Your task to perform on an android device: Go to ESPN.com Image 0: 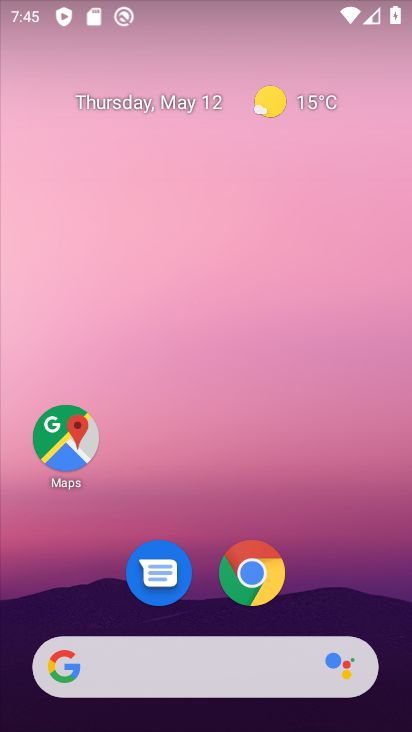
Step 0: click (258, 575)
Your task to perform on an android device: Go to ESPN.com Image 1: 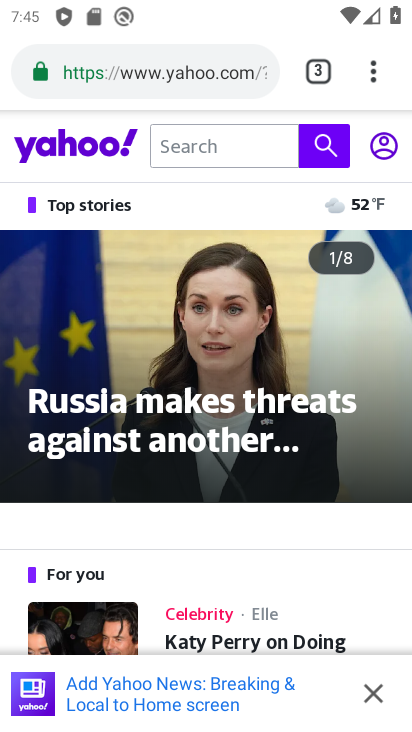
Step 1: click (374, 98)
Your task to perform on an android device: Go to ESPN.com Image 2: 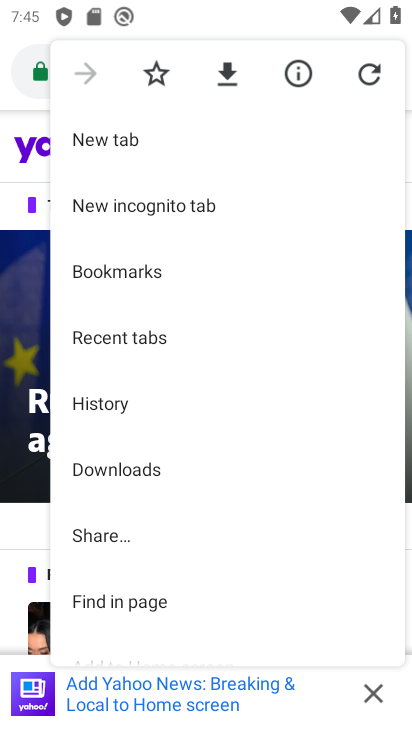
Step 2: click (124, 134)
Your task to perform on an android device: Go to ESPN.com Image 3: 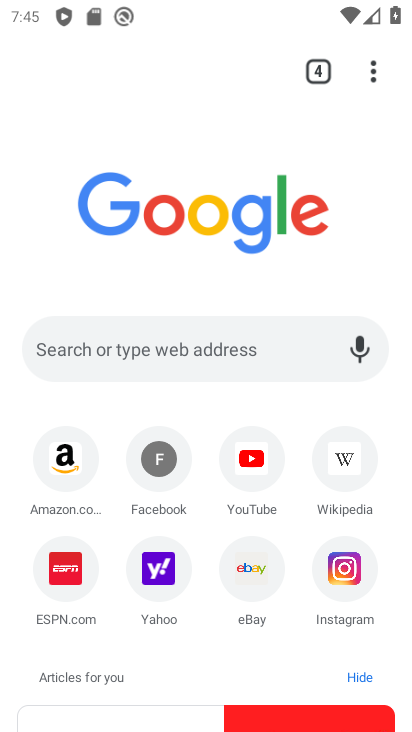
Step 3: click (71, 572)
Your task to perform on an android device: Go to ESPN.com Image 4: 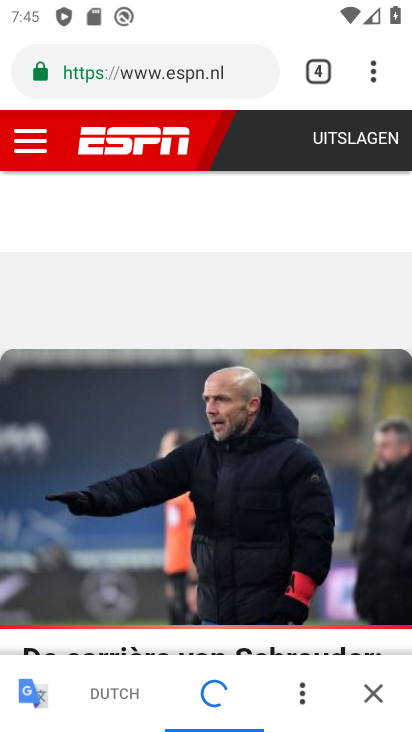
Step 4: task complete